Your task to perform on an android device: turn off priority inbox in the gmail app Image 0: 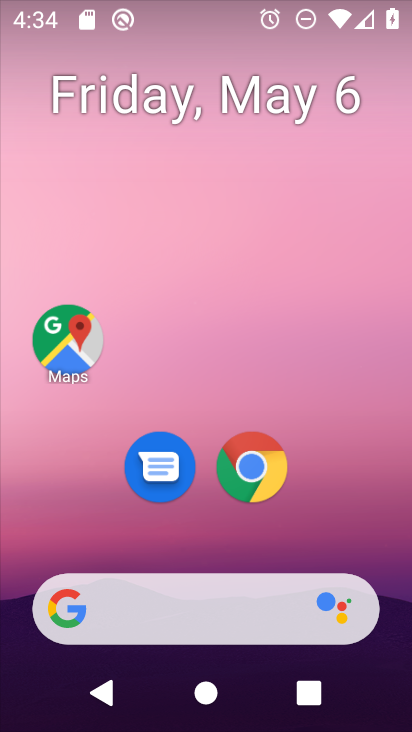
Step 0: drag from (280, 548) to (307, 34)
Your task to perform on an android device: turn off priority inbox in the gmail app Image 1: 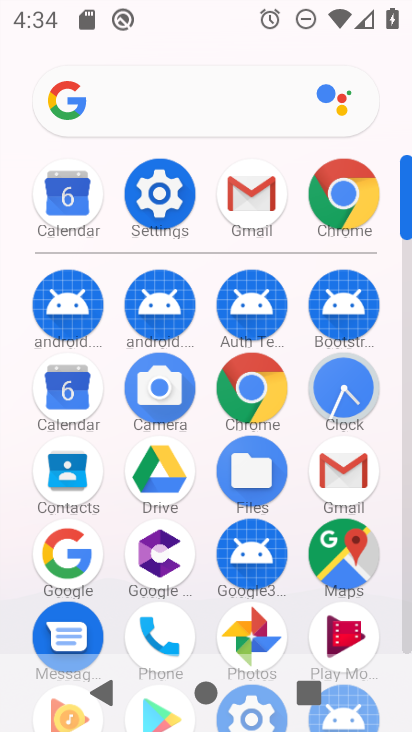
Step 1: click (245, 213)
Your task to perform on an android device: turn off priority inbox in the gmail app Image 2: 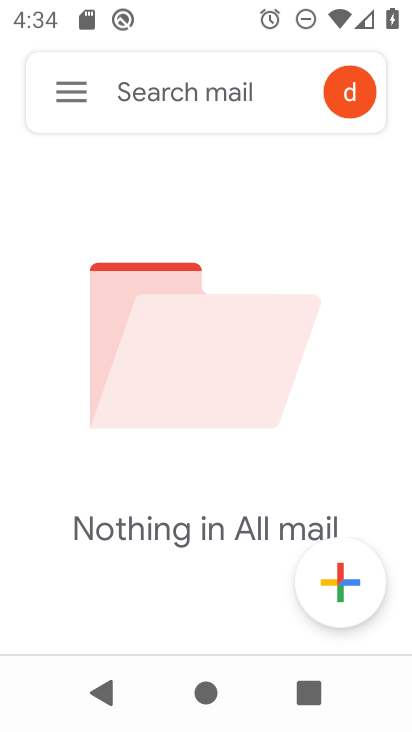
Step 2: click (66, 91)
Your task to perform on an android device: turn off priority inbox in the gmail app Image 3: 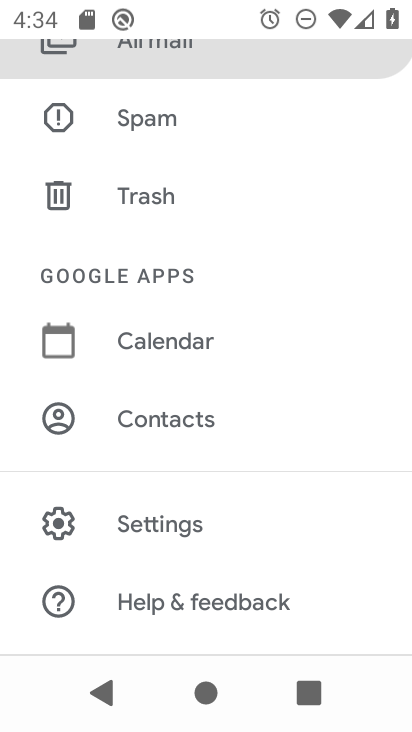
Step 3: click (169, 521)
Your task to perform on an android device: turn off priority inbox in the gmail app Image 4: 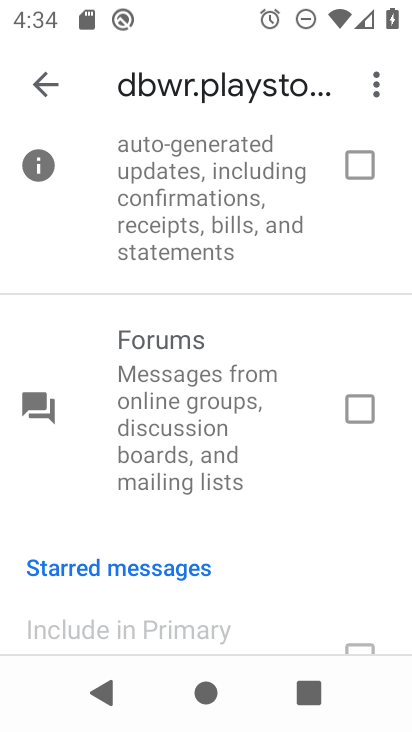
Step 4: click (38, 90)
Your task to perform on an android device: turn off priority inbox in the gmail app Image 5: 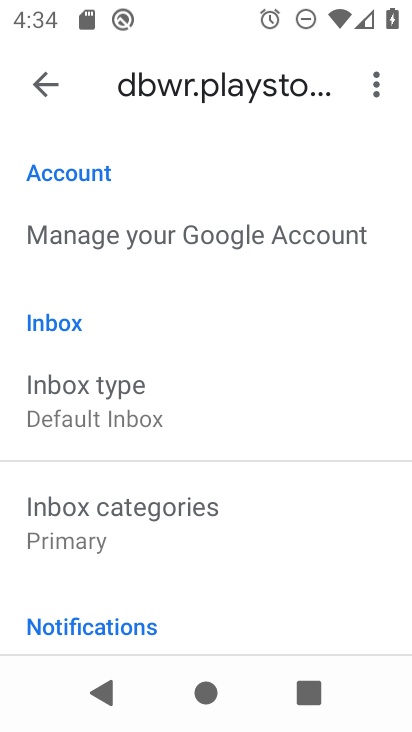
Step 5: click (89, 420)
Your task to perform on an android device: turn off priority inbox in the gmail app Image 6: 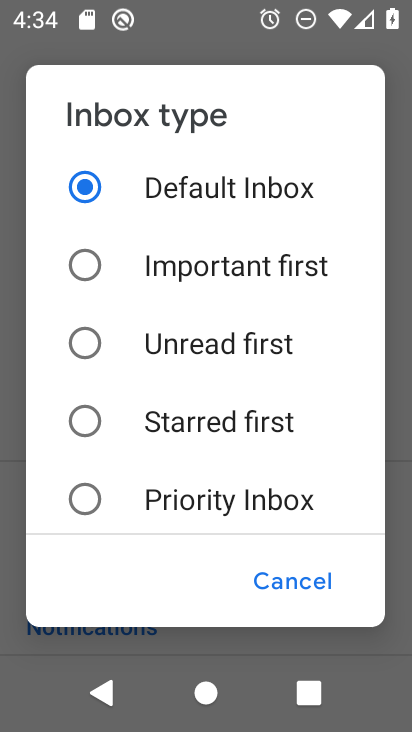
Step 6: task complete